Your task to perform on an android device: remove spam from my inbox in the gmail app Image 0: 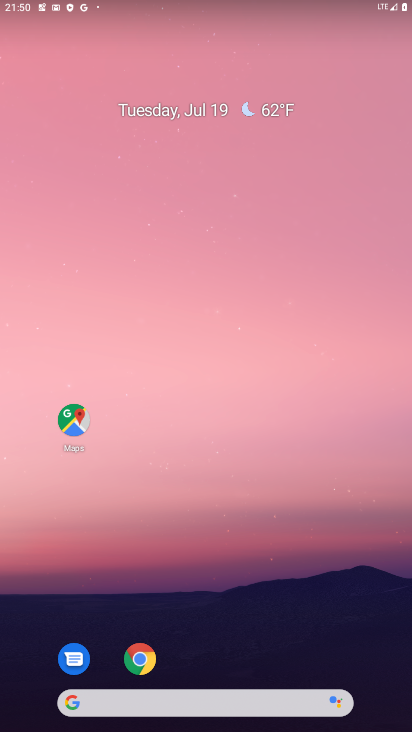
Step 0: drag from (266, 646) to (240, 177)
Your task to perform on an android device: remove spam from my inbox in the gmail app Image 1: 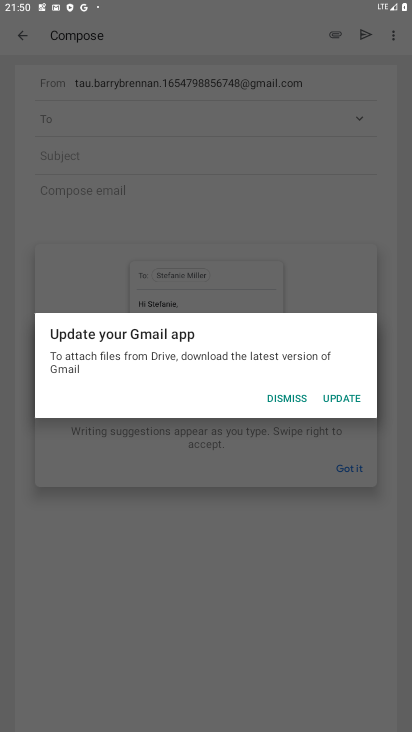
Step 1: press home button
Your task to perform on an android device: remove spam from my inbox in the gmail app Image 2: 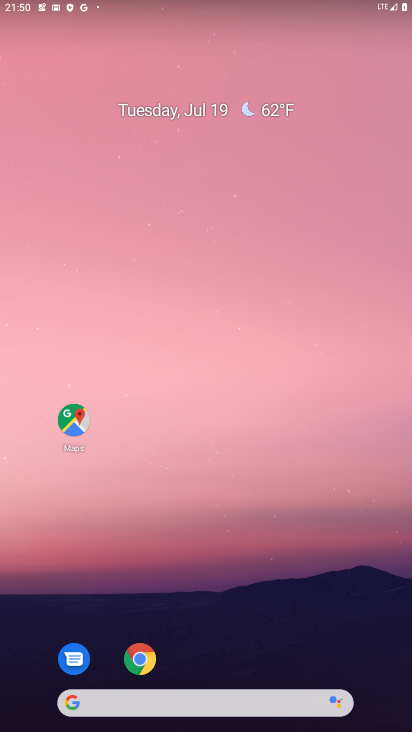
Step 2: drag from (256, 539) to (263, 40)
Your task to perform on an android device: remove spam from my inbox in the gmail app Image 3: 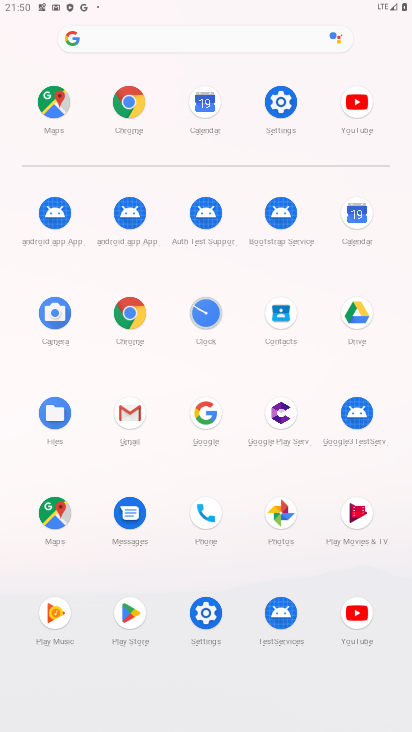
Step 3: click (143, 406)
Your task to perform on an android device: remove spam from my inbox in the gmail app Image 4: 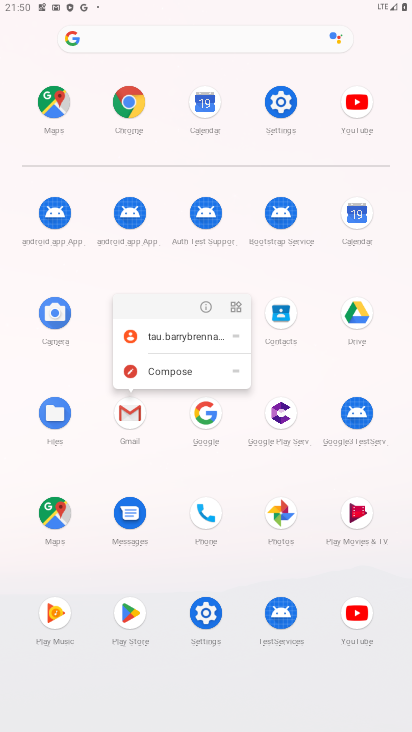
Step 4: click (131, 412)
Your task to perform on an android device: remove spam from my inbox in the gmail app Image 5: 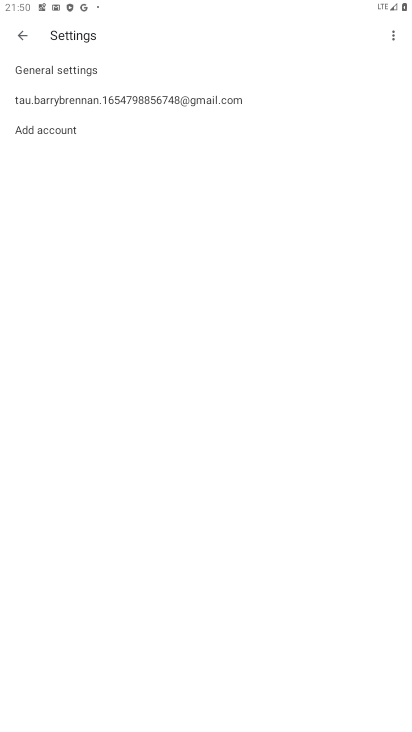
Step 5: click (10, 29)
Your task to perform on an android device: remove spam from my inbox in the gmail app Image 6: 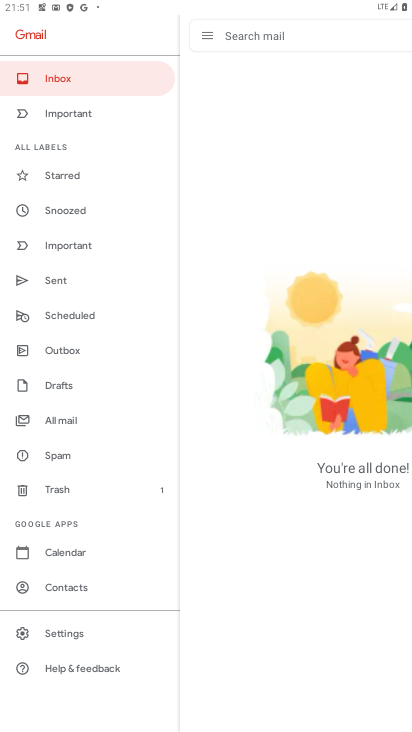
Step 6: click (67, 448)
Your task to perform on an android device: remove spam from my inbox in the gmail app Image 7: 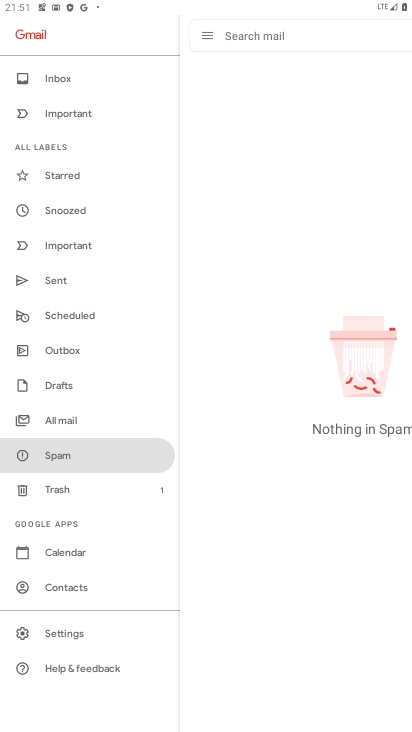
Step 7: task complete